Your task to perform on an android device: turn pop-ups on in chrome Image 0: 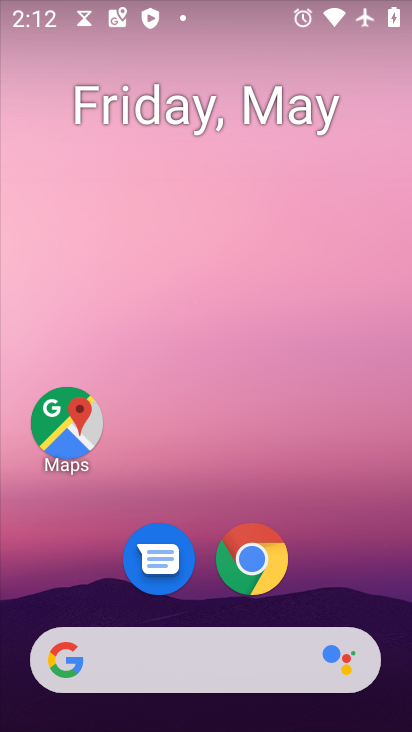
Step 0: click (256, 546)
Your task to perform on an android device: turn pop-ups on in chrome Image 1: 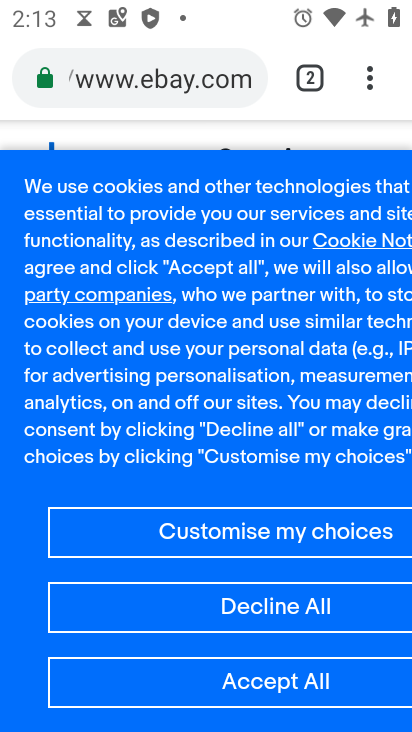
Step 1: drag from (374, 77) to (219, 613)
Your task to perform on an android device: turn pop-ups on in chrome Image 2: 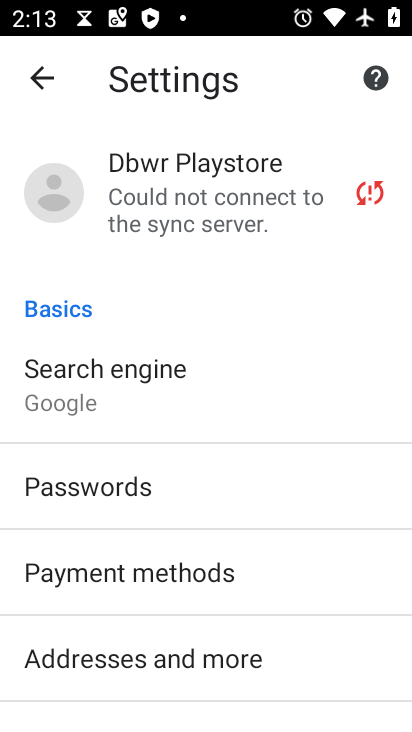
Step 2: click (279, 240)
Your task to perform on an android device: turn pop-ups on in chrome Image 3: 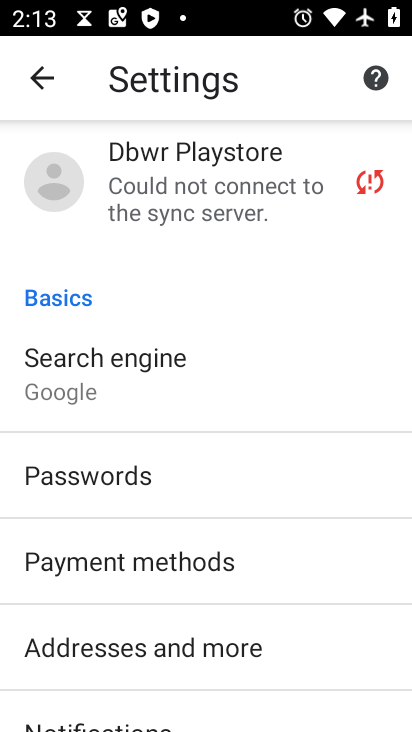
Step 3: drag from (223, 645) to (270, 344)
Your task to perform on an android device: turn pop-ups on in chrome Image 4: 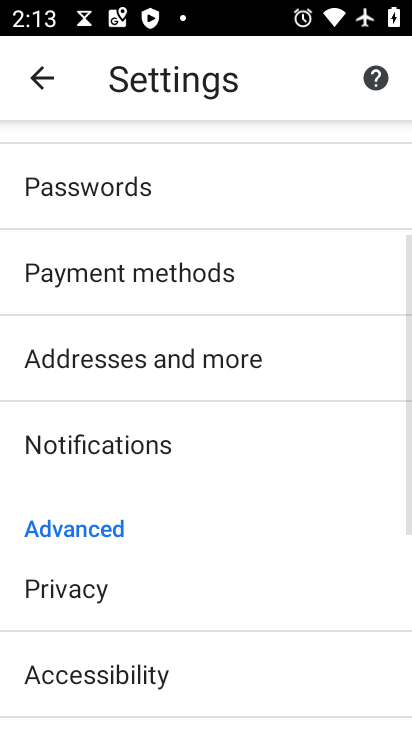
Step 4: drag from (203, 664) to (325, 275)
Your task to perform on an android device: turn pop-ups on in chrome Image 5: 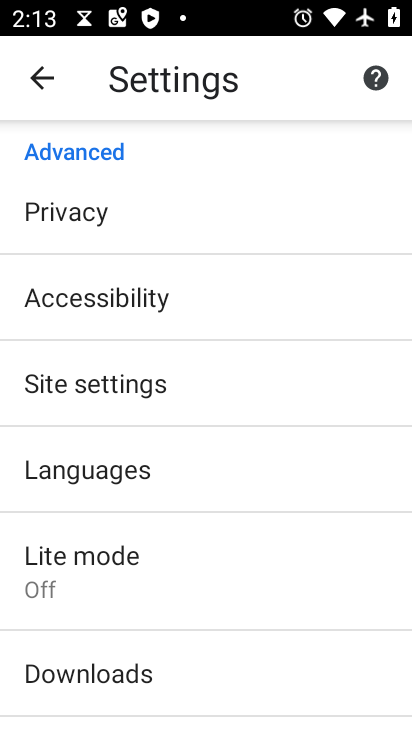
Step 5: drag from (212, 682) to (234, 475)
Your task to perform on an android device: turn pop-ups on in chrome Image 6: 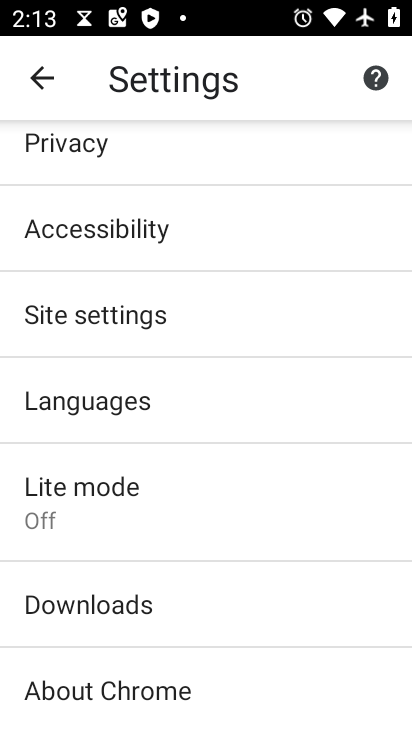
Step 6: drag from (172, 642) to (229, 452)
Your task to perform on an android device: turn pop-ups on in chrome Image 7: 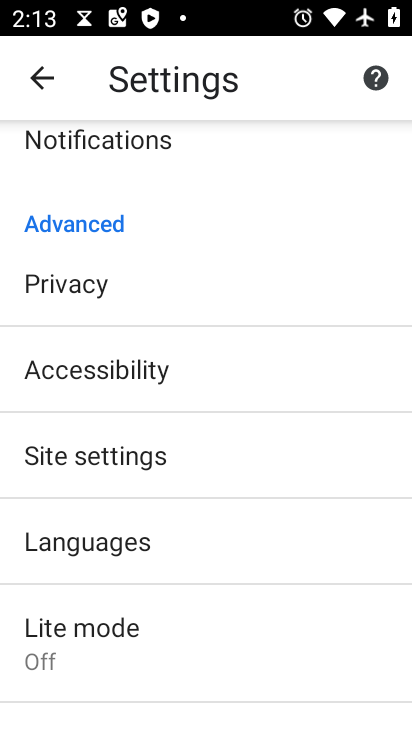
Step 7: click (161, 458)
Your task to perform on an android device: turn pop-ups on in chrome Image 8: 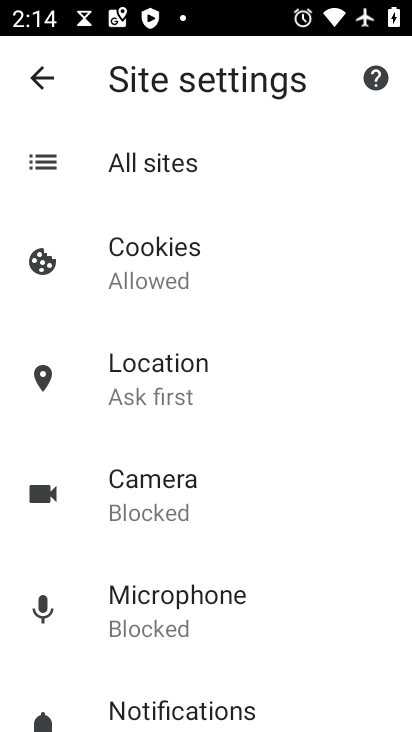
Step 8: drag from (255, 661) to (305, 248)
Your task to perform on an android device: turn pop-ups on in chrome Image 9: 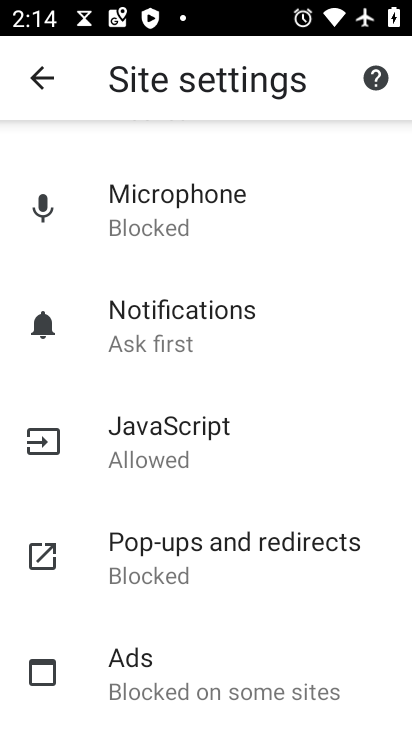
Step 9: click (231, 577)
Your task to perform on an android device: turn pop-ups on in chrome Image 10: 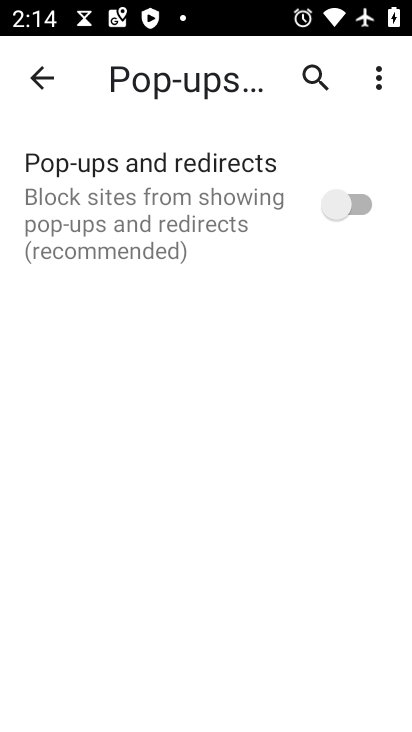
Step 10: click (357, 212)
Your task to perform on an android device: turn pop-ups on in chrome Image 11: 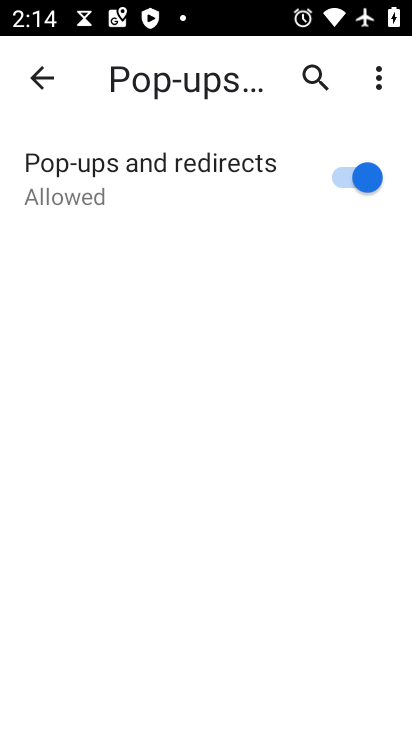
Step 11: task complete